Your task to perform on an android device: toggle sleep mode Image 0: 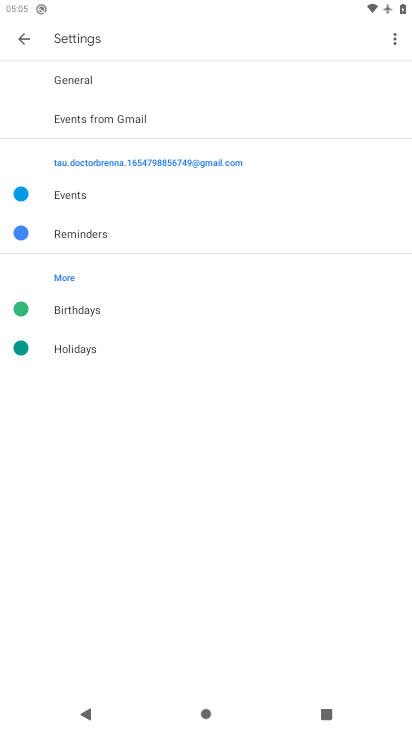
Step 0: press home button
Your task to perform on an android device: toggle sleep mode Image 1: 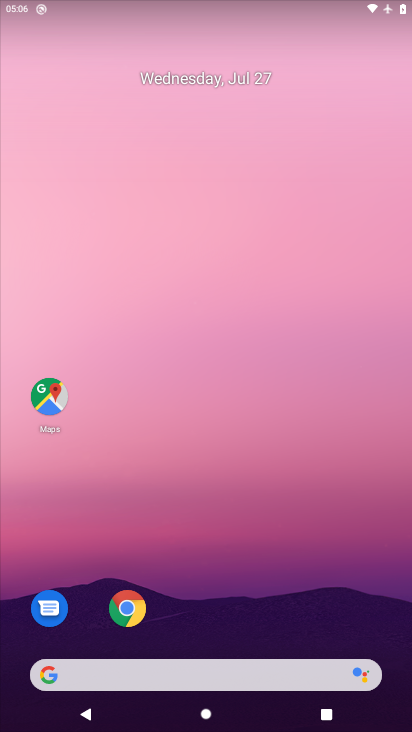
Step 1: drag from (214, 626) to (46, 4)
Your task to perform on an android device: toggle sleep mode Image 2: 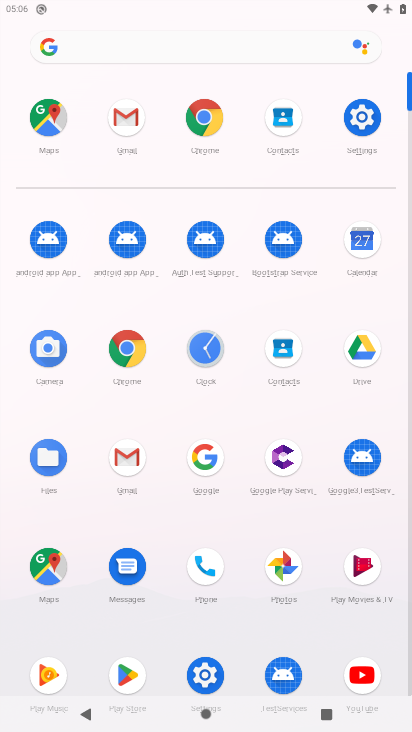
Step 2: click (353, 133)
Your task to perform on an android device: toggle sleep mode Image 3: 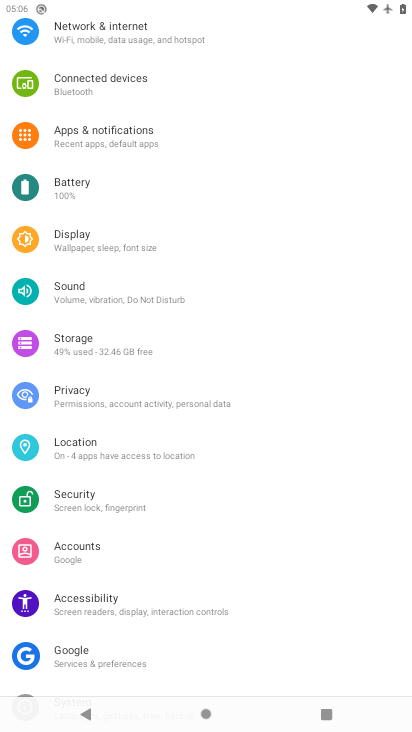
Step 3: click (70, 239)
Your task to perform on an android device: toggle sleep mode Image 4: 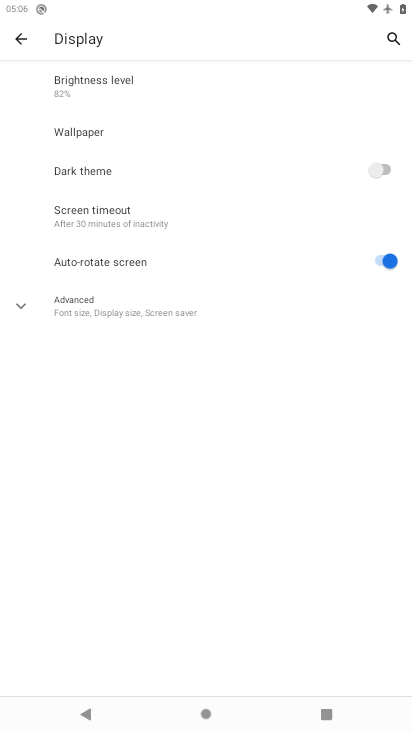
Step 4: task complete